Your task to perform on an android device: Open internet settings Image 0: 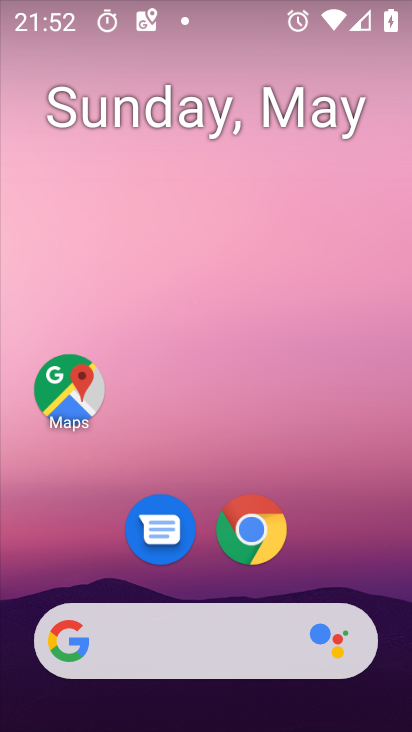
Step 0: drag from (384, 592) to (364, 4)
Your task to perform on an android device: Open internet settings Image 1: 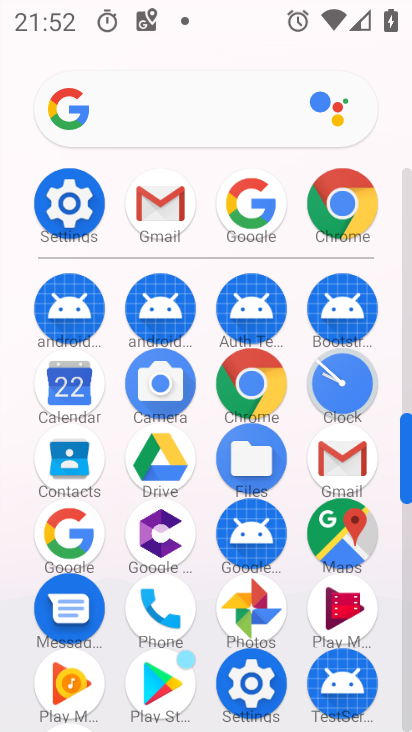
Step 1: click (55, 201)
Your task to perform on an android device: Open internet settings Image 2: 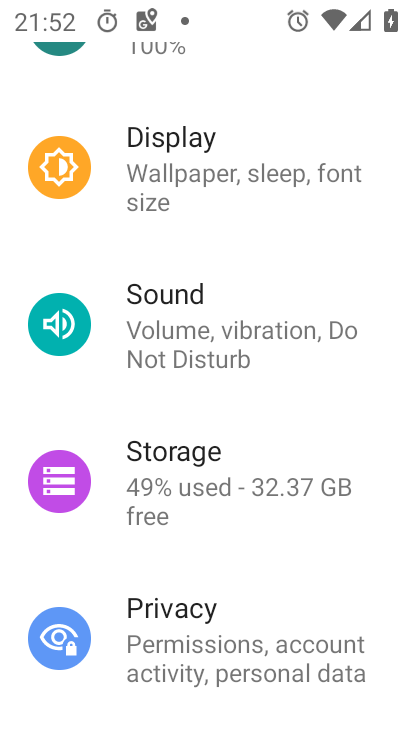
Step 2: drag from (343, 183) to (362, 698)
Your task to perform on an android device: Open internet settings Image 3: 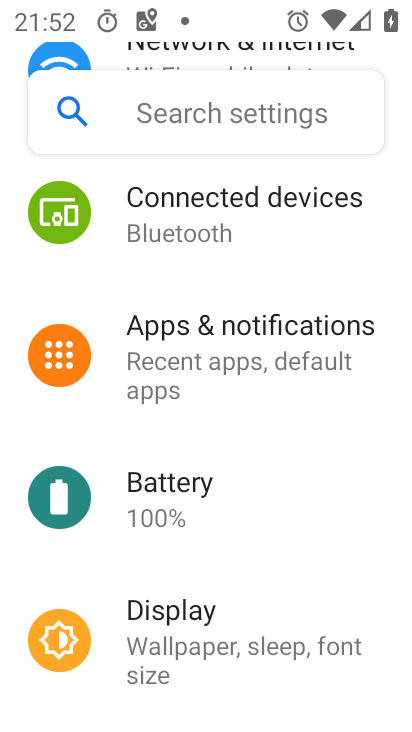
Step 3: drag from (348, 240) to (358, 729)
Your task to perform on an android device: Open internet settings Image 4: 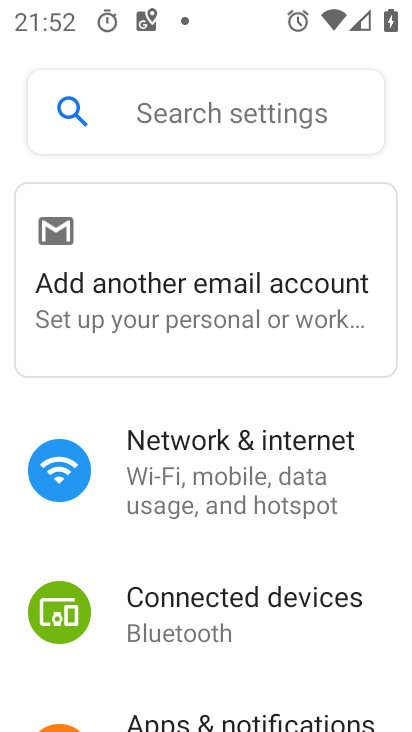
Step 4: click (195, 479)
Your task to perform on an android device: Open internet settings Image 5: 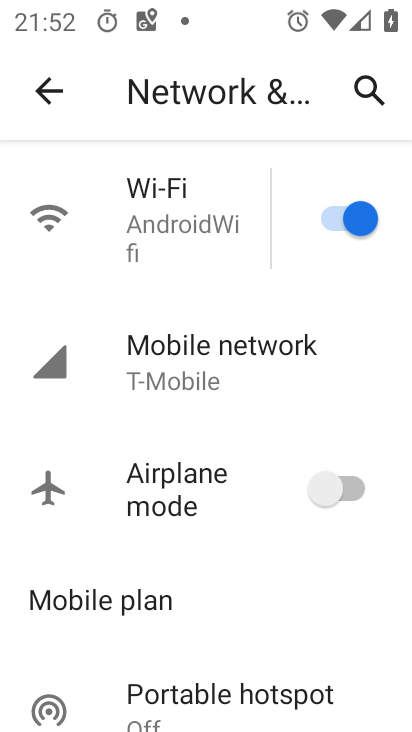
Step 5: task complete